Your task to perform on an android device: Play the last video I watched on Youtube Image 0: 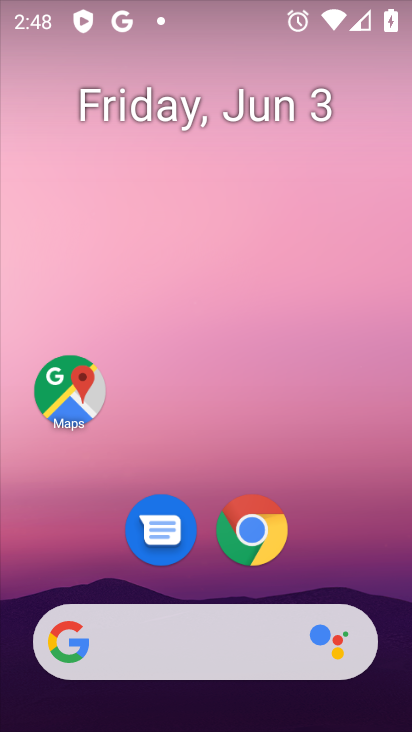
Step 0: drag from (96, 695) to (142, 163)
Your task to perform on an android device: Play the last video I watched on Youtube Image 1: 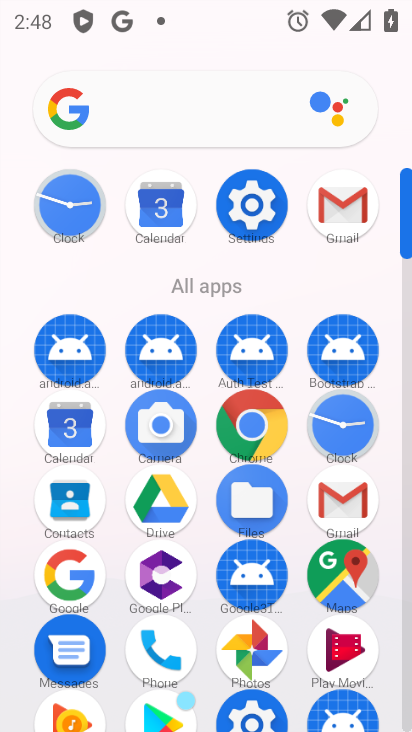
Step 1: drag from (210, 586) to (222, 319)
Your task to perform on an android device: Play the last video I watched on Youtube Image 2: 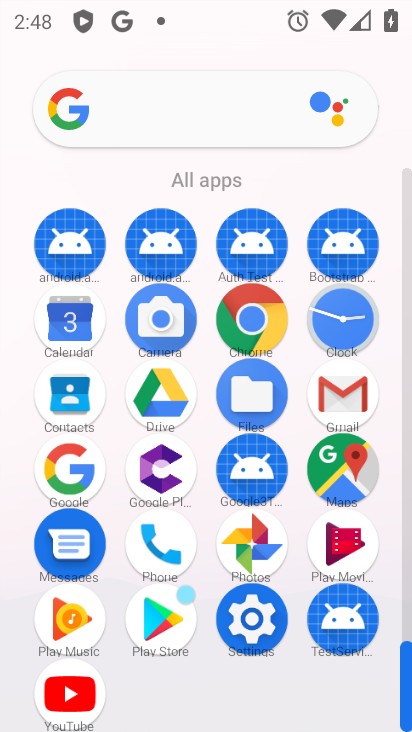
Step 2: click (64, 697)
Your task to perform on an android device: Play the last video I watched on Youtube Image 3: 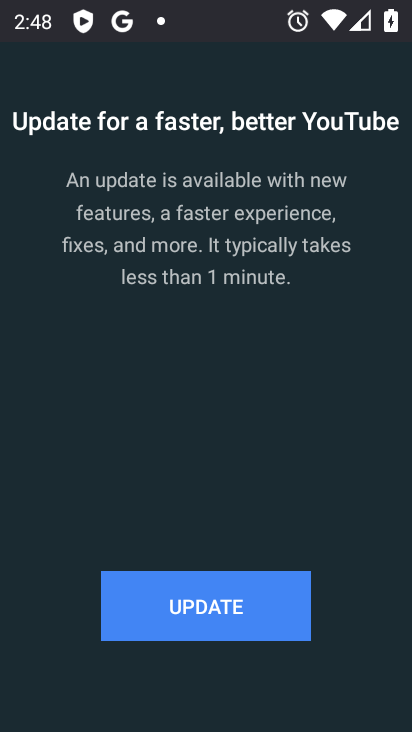
Step 3: click (202, 616)
Your task to perform on an android device: Play the last video I watched on Youtube Image 4: 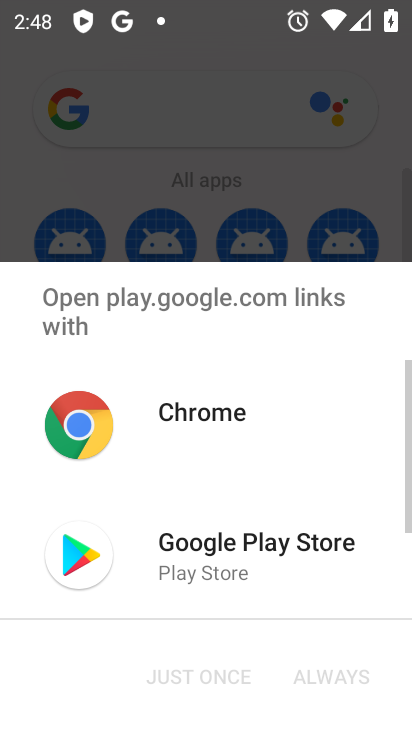
Step 4: click (225, 578)
Your task to perform on an android device: Play the last video I watched on Youtube Image 5: 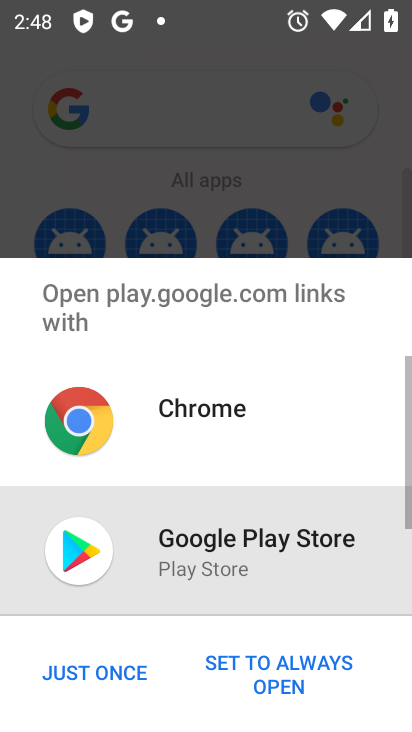
Step 5: click (113, 670)
Your task to perform on an android device: Play the last video I watched on Youtube Image 6: 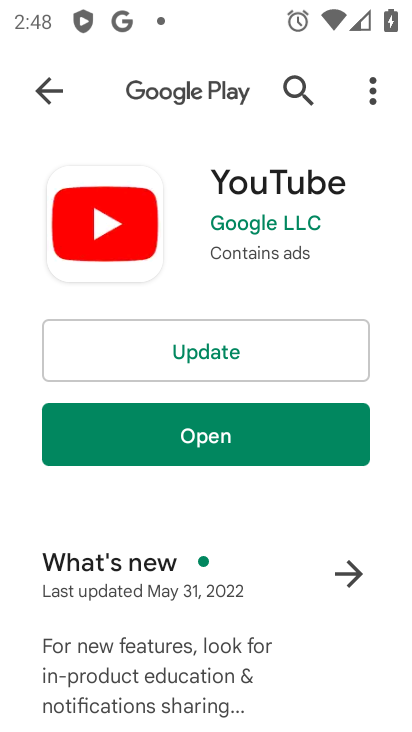
Step 6: click (218, 367)
Your task to perform on an android device: Play the last video I watched on Youtube Image 7: 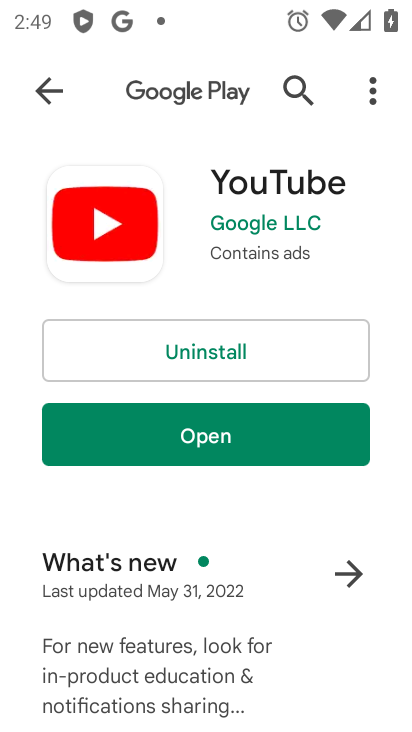
Step 7: click (208, 448)
Your task to perform on an android device: Play the last video I watched on Youtube Image 8: 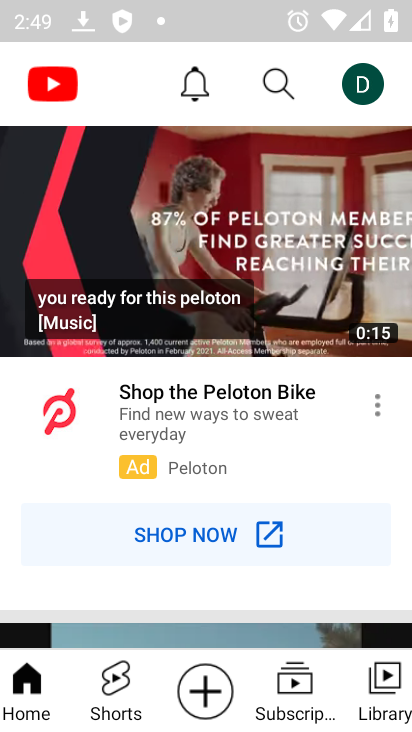
Step 8: click (372, 700)
Your task to perform on an android device: Play the last video I watched on Youtube Image 9: 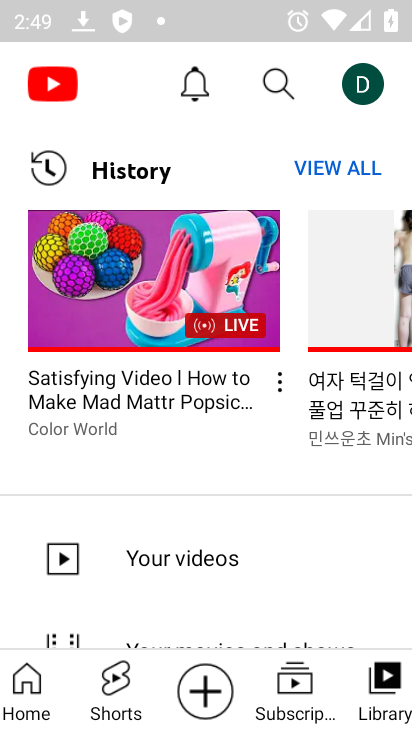
Step 9: click (126, 263)
Your task to perform on an android device: Play the last video I watched on Youtube Image 10: 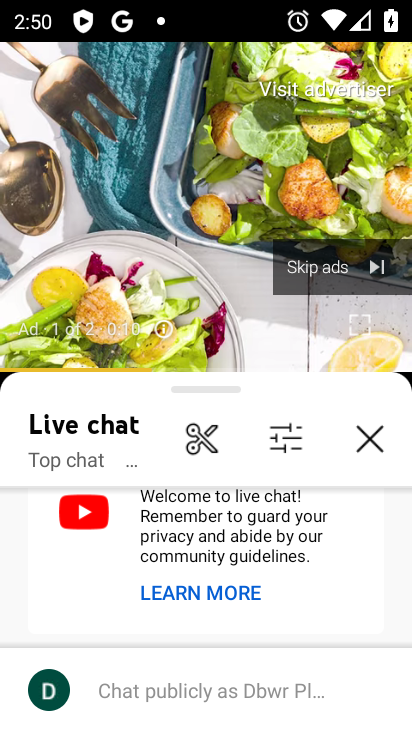
Step 10: click (347, 258)
Your task to perform on an android device: Play the last video I watched on Youtube Image 11: 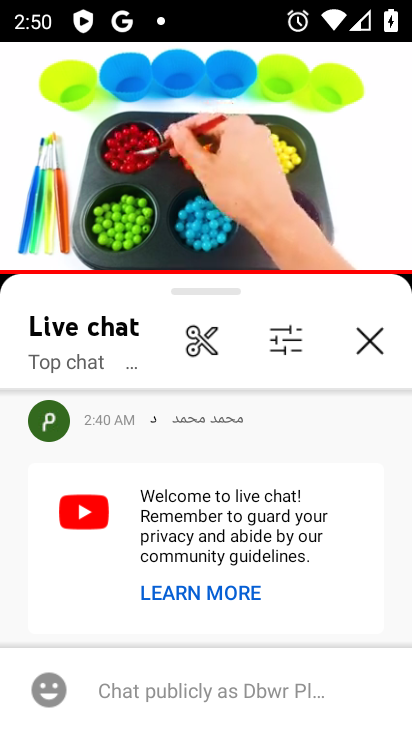
Step 11: task complete